Your task to perform on an android device: Open accessibility settings Image 0: 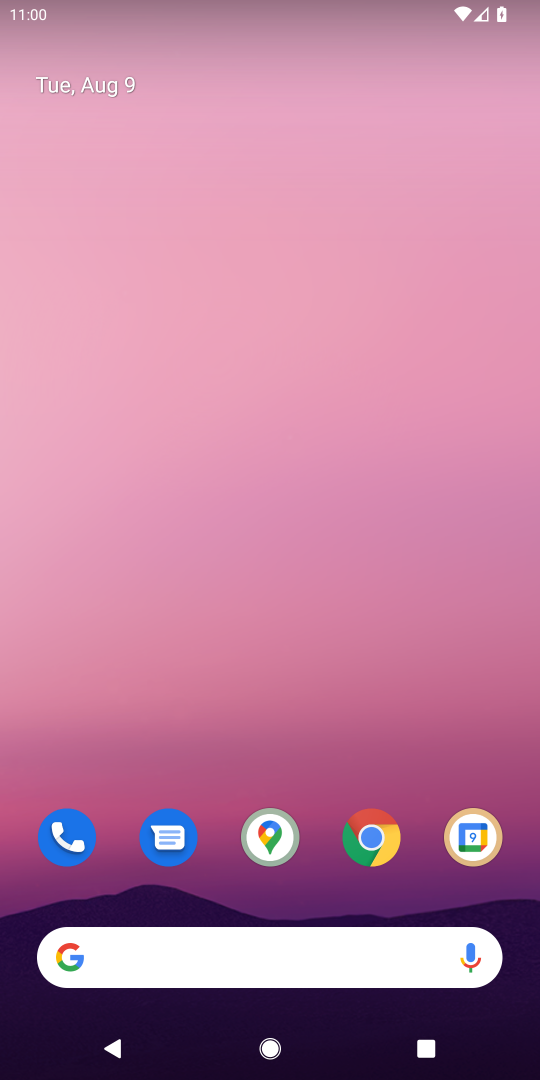
Step 0: drag from (307, 904) to (307, 28)
Your task to perform on an android device: Open accessibility settings Image 1: 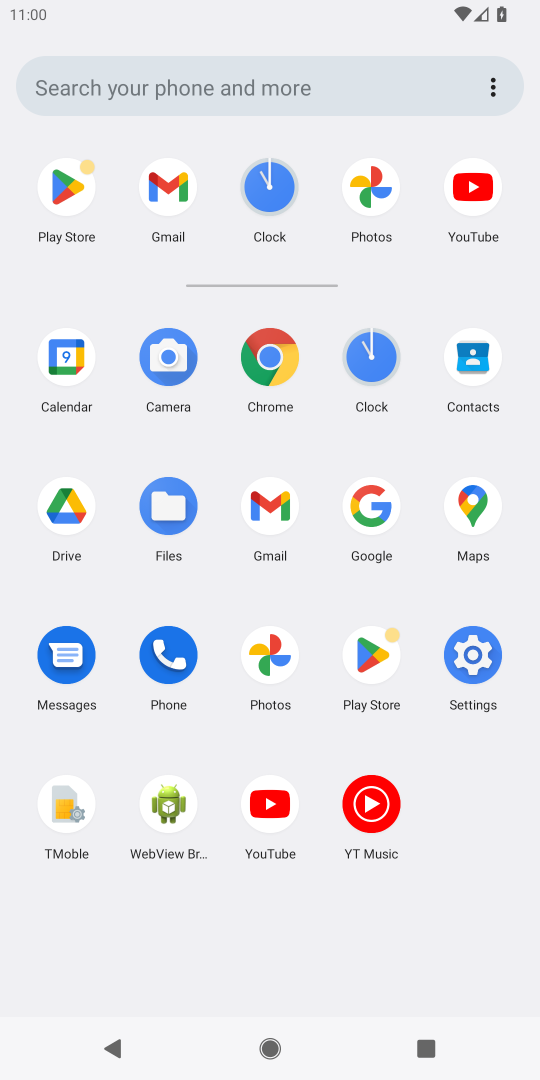
Step 1: click (475, 669)
Your task to perform on an android device: Open accessibility settings Image 2: 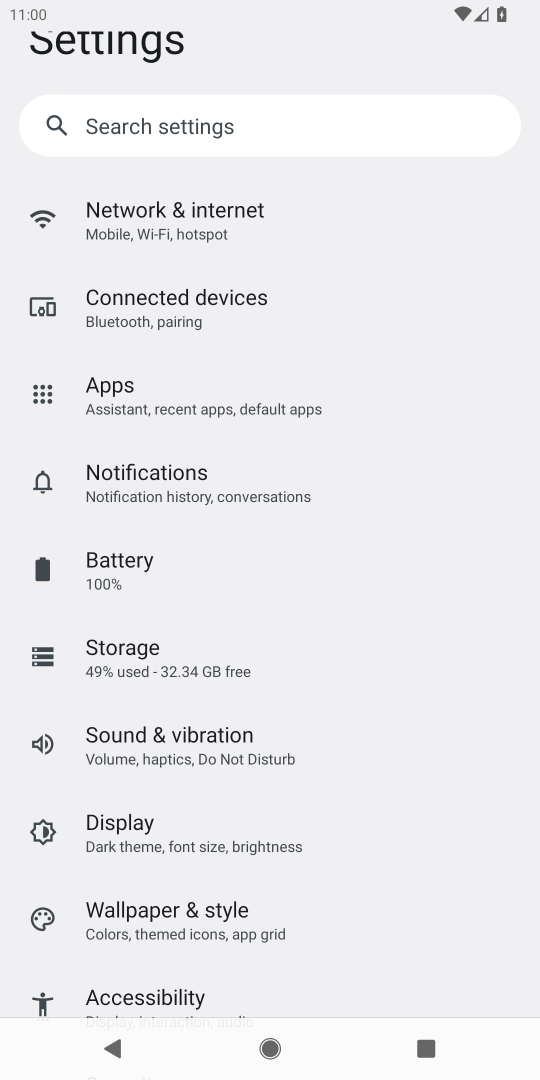
Step 2: click (149, 986)
Your task to perform on an android device: Open accessibility settings Image 3: 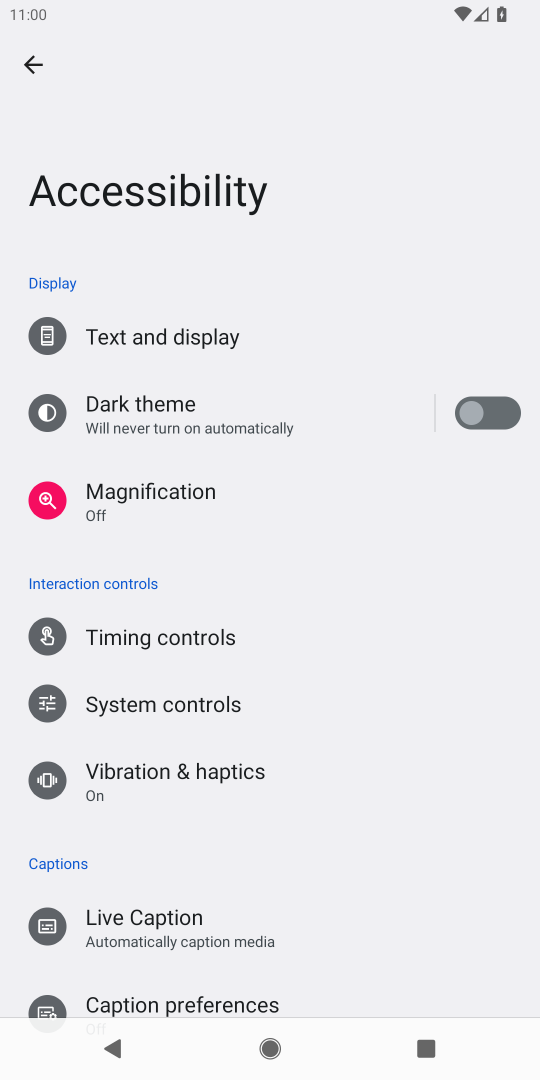
Step 3: task complete